Your task to perform on an android device: Do I have any events today? Image 0: 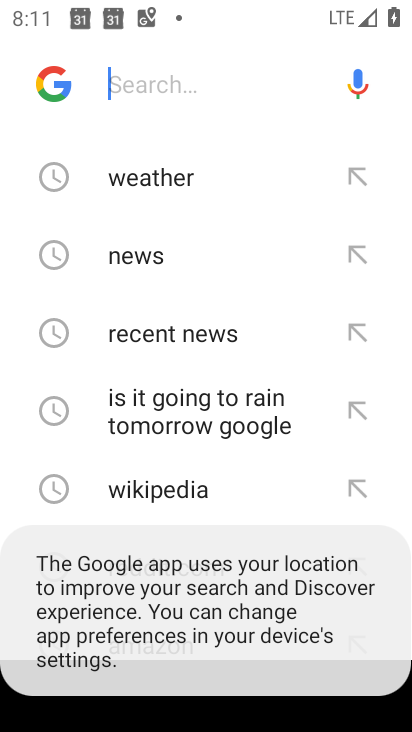
Step 0: press home button
Your task to perform on an android device: Do I have any events today? Image 1: 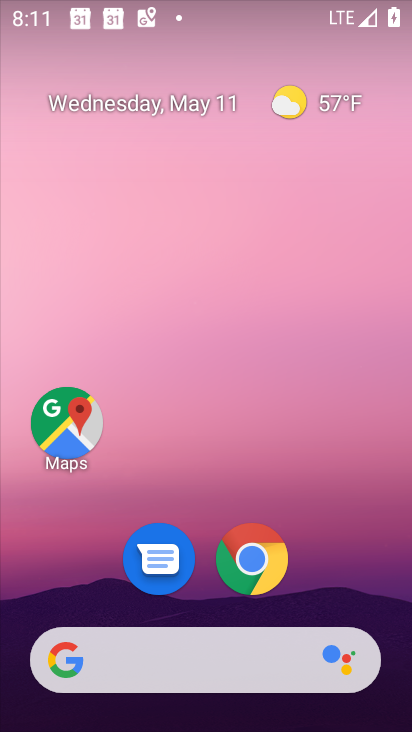
Step 1: drag from (265, 471) to (295, 4)
Your task to perform on an android device: Do I have any events today? Image 2: 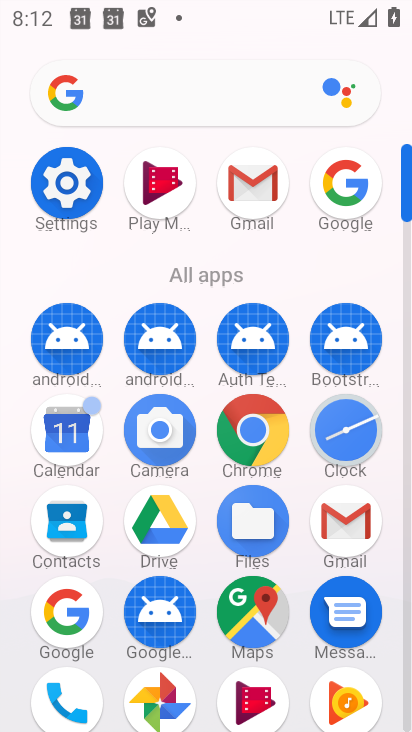
Step 2: click (58, 422)
Your task to perform on an android device: Do I have any events today? Image 3: 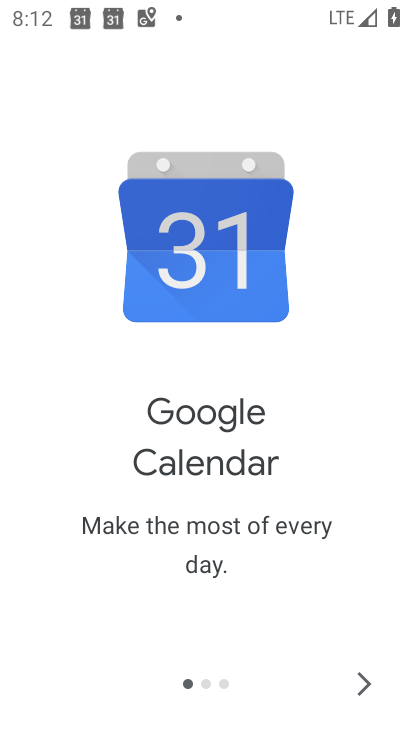
Step 3: click (359, 687)
Your task to perform on an android device: Do I have any events today? Image 4: 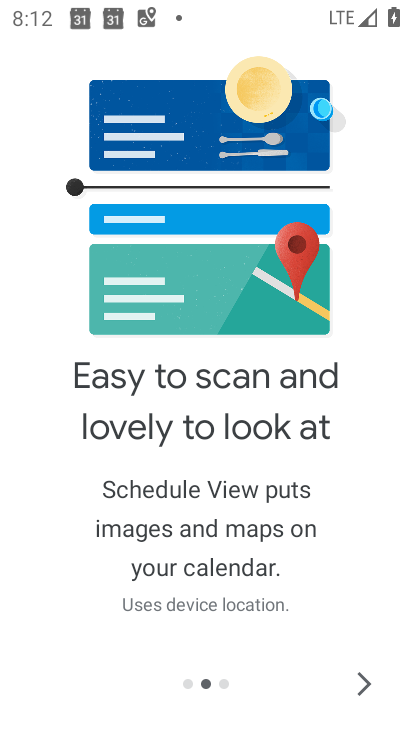
Step 4: click (359, 687)
Your task to perform on an android device: Do I have any events today? Image 5: 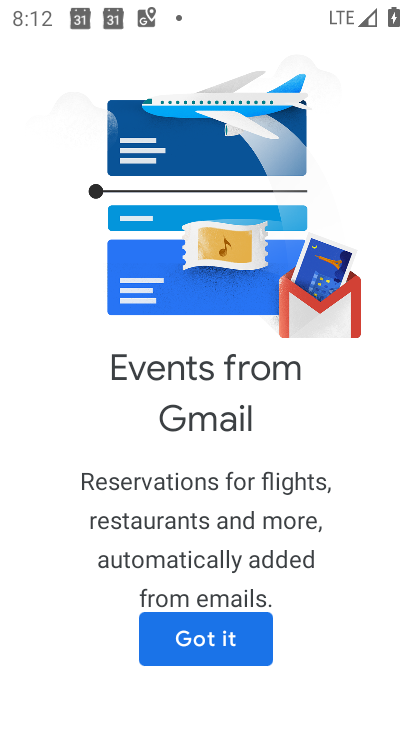
Step 5: click (199, 674)
Your task to perform on an android device: Do I have any events today? Image 6: 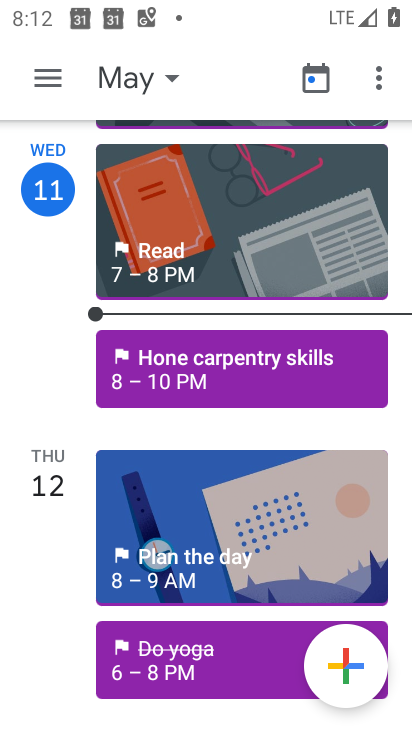
Step 6: click (139, 78)
Your task to perform on an android device: Do I have any events today? Image 7: 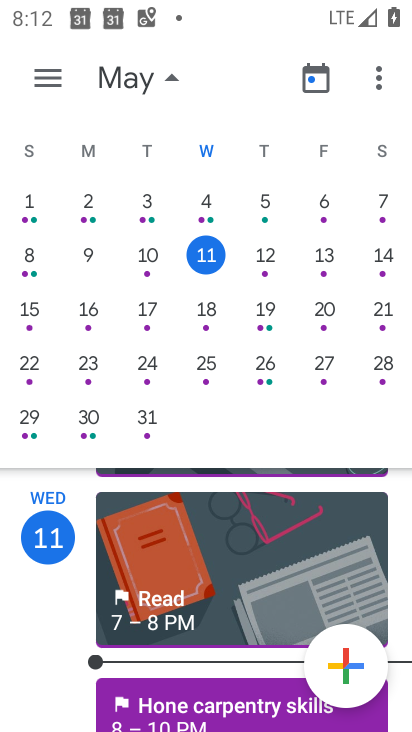
Step 7: click (261, 264)
Your task to perform on an android device: Do I have any events today? Image 8: 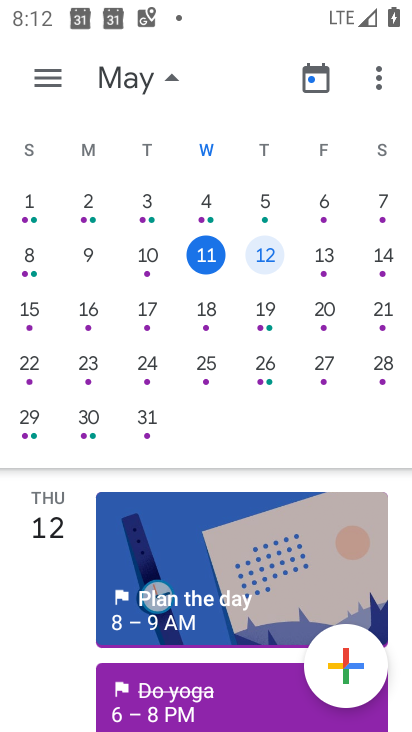
Step 8: click (166, 83)
Your task to perform on an android device: Do I have any events today? Image 9: 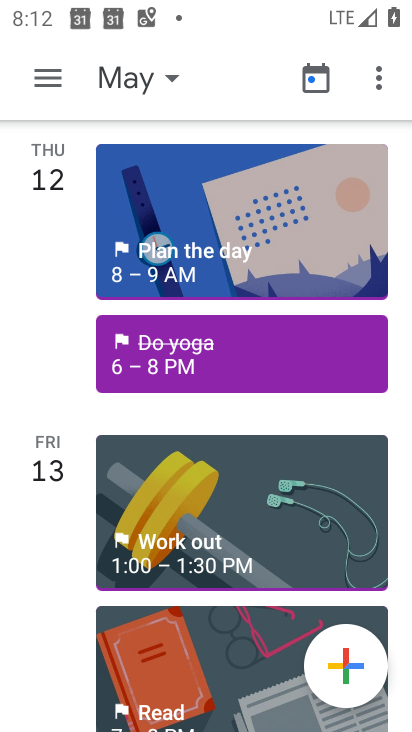
Step 9: task complete